Your task to perform on an android device: Go to Yahoo.com Image 0: 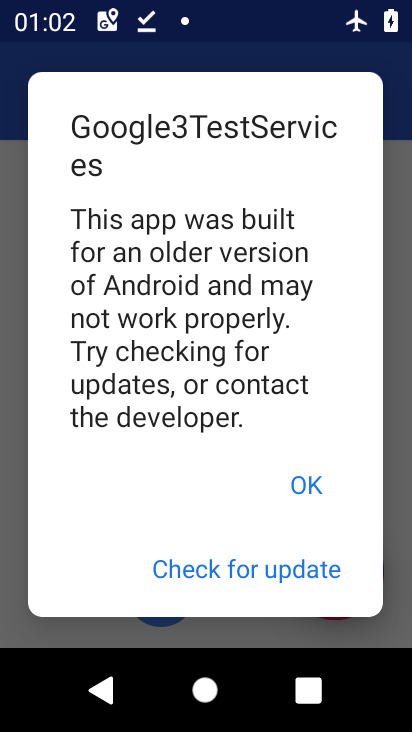
Step 0: press home button
Your task to perform on an android device: Go to Yahoo.com Image 1: 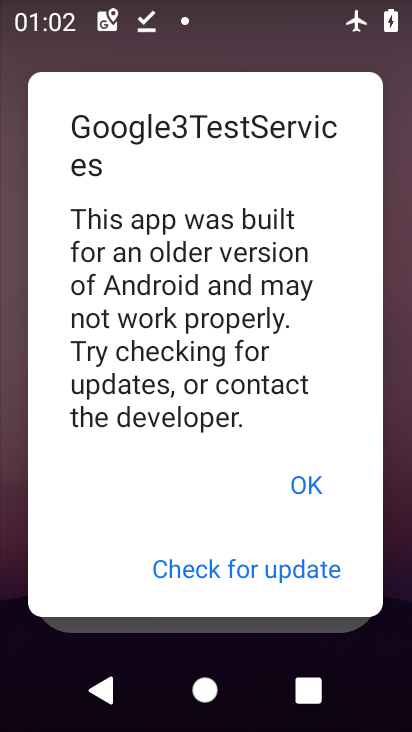
Step 1: click (294, 479)
Your task to perform on an android device: Go to Yahoo.com Image 2: 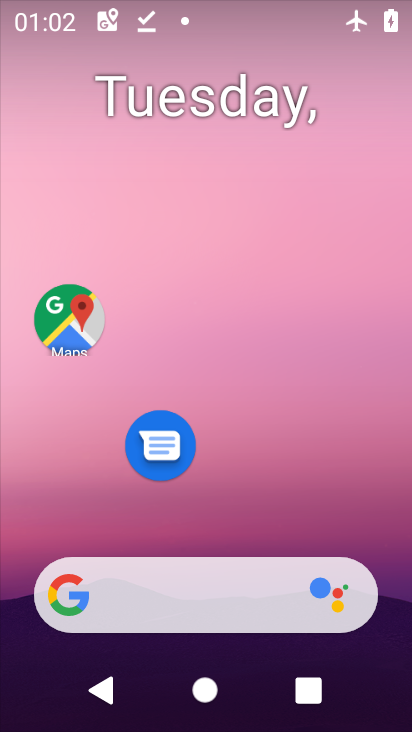
Step 2: drag from (207, 488) to (190, 129)
Your task to perform on an android device: Go to Yahoo.com Image 3: 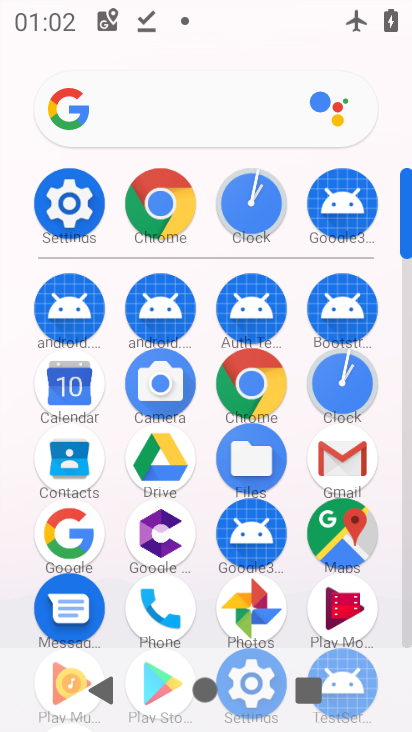
Step 3: click (154, 188)
Your task to perform on an android device: Go to Yahoo.com Image 4: 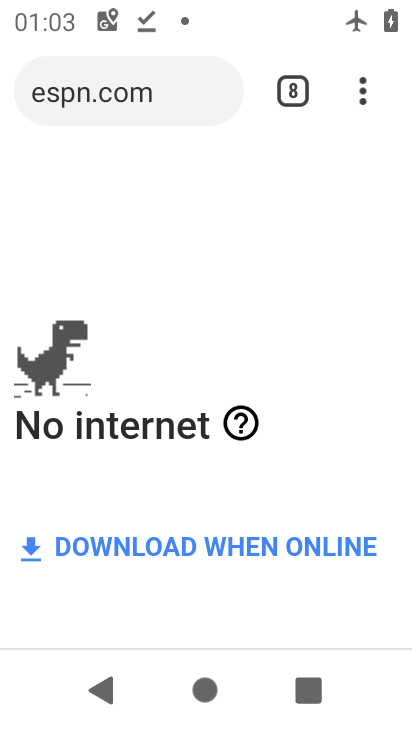
Step 4: task complete